Your task to perform on an android device: snooze an email in the gmail app Image 0: 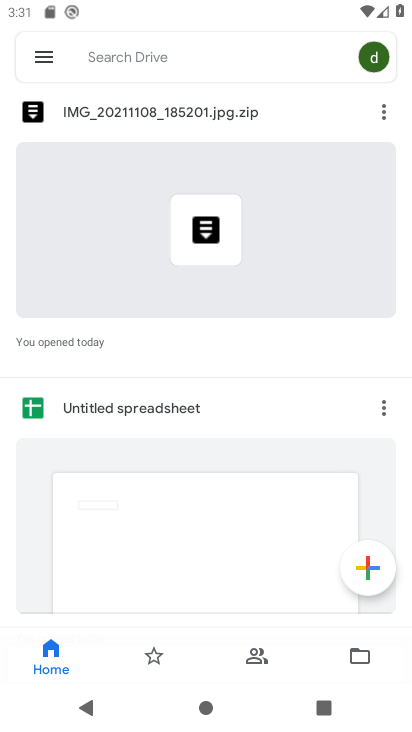
Step 0: press home button
Your task to perform on an android device: snooze an email in the gmail app Image 1: 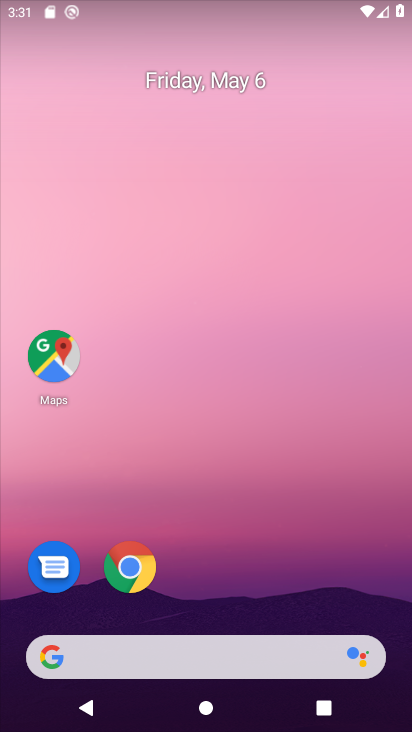
Step 1: drag from (186, 645) to (203, 88)
Your task to perform on an android device: snooze an email in the gmail app Image 2: 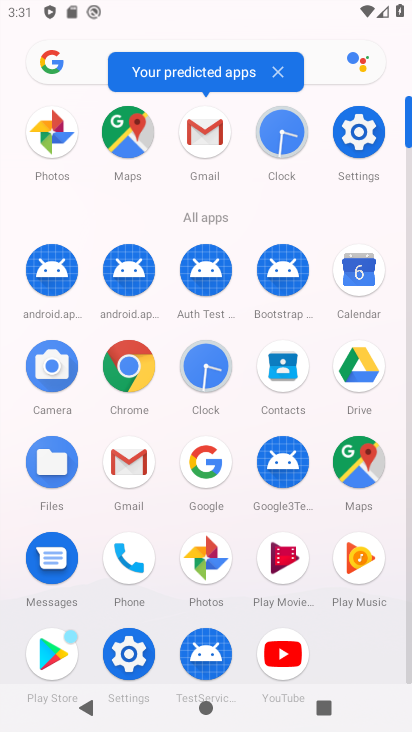
Step 2: click (202, 148)
Your task to perform on an android device: snooze an email in the gmail app Image 3: 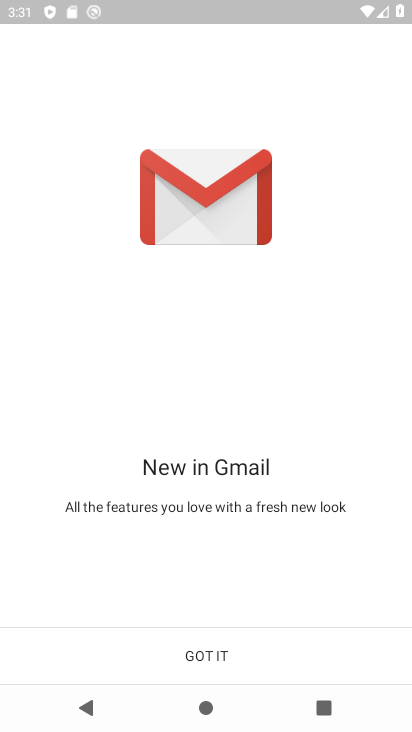
Step 3: click (197, 650)
Your task to perform on an android device: snooze an email in the gmail app Image 4: 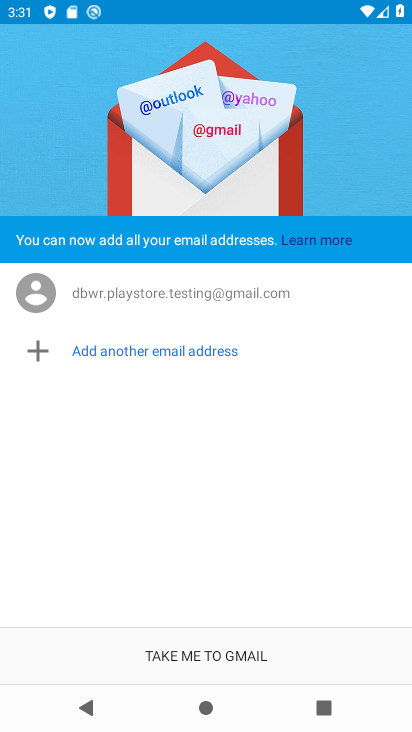
Step 4: click (198, 649)
Your task to perform on an android device: snooze an email in the gmail app Image 5: 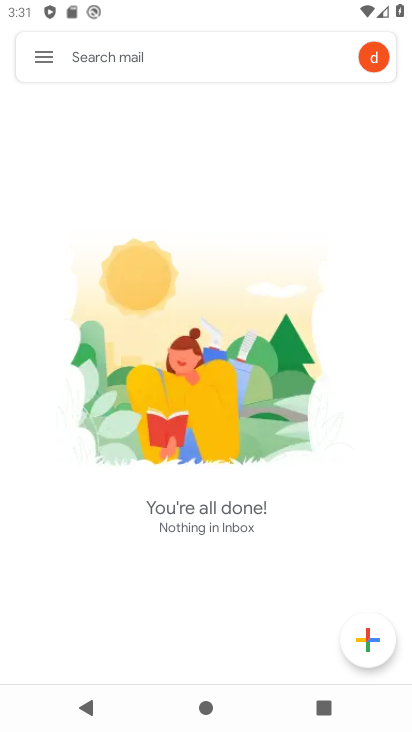
Step 5: click (31, 51)
Your task to perform on an android device: snooze an email in the gmail app Image 6: 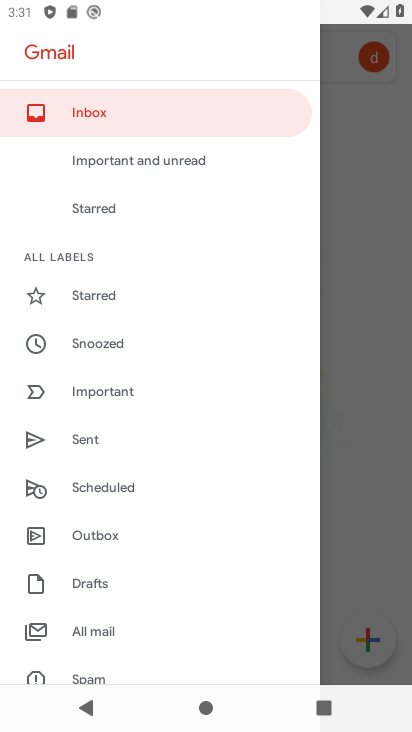
Step 6: click (80, 638)
Your task to perform on an android device: snooze an email in the gmail app Image 7: 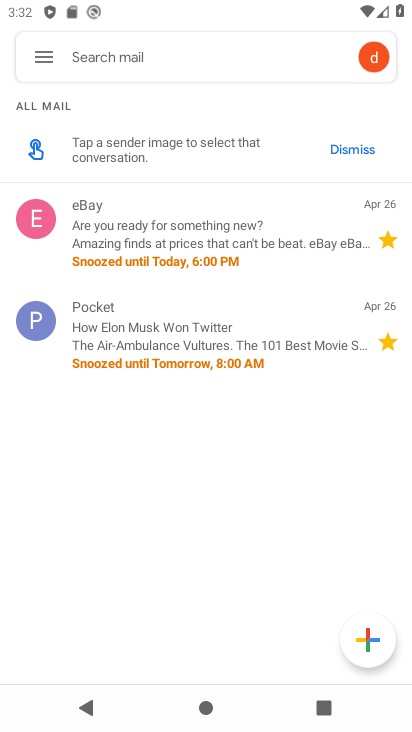
Step 7: task complete